Your task to perform on an android device: turn off picture-in-picture Image 0: 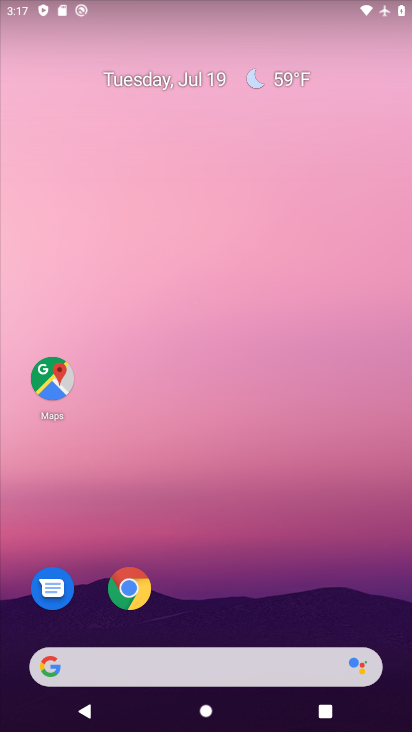
Step 0: drag from (230, 614) to (225, 6)
Your task to perform on an android device: turn off picture-in-picture Image 1: 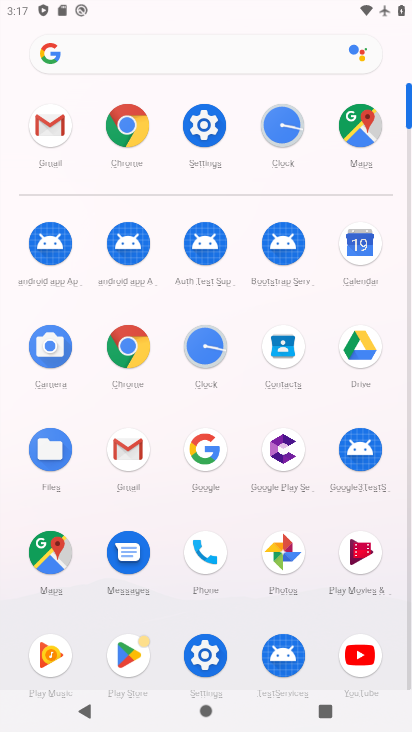
Step 1: click (128, 132)
Your task to perform on an android device: turn off picture-in-picture Image 2: 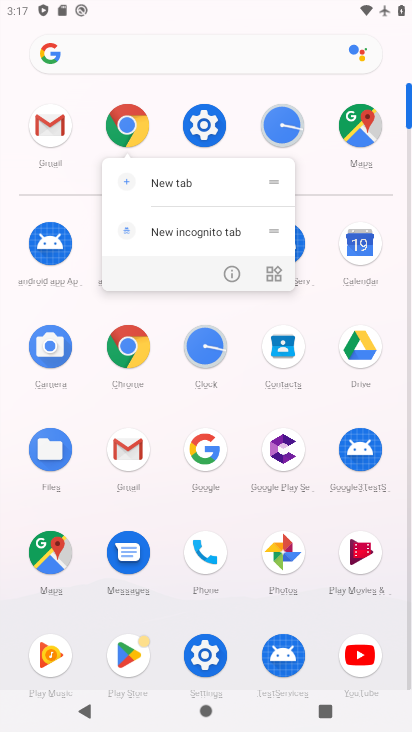
Step 2: click (138, 123)
Your task to perform on an android device: turn off picture-in-picture Image 3: 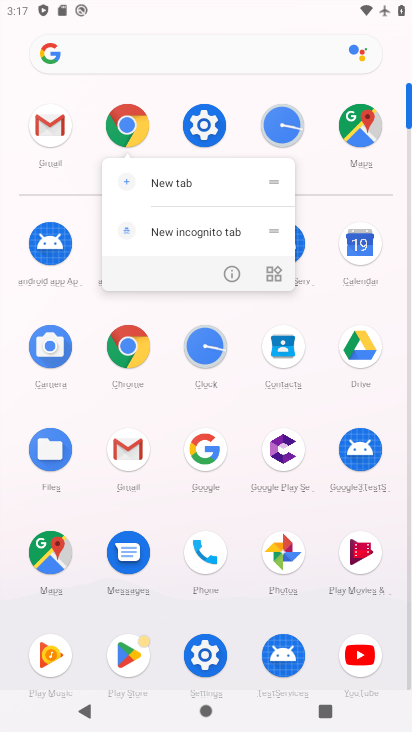
Step 3: click (227, 274)
Your task to perform on an android device: turn off picture-in-picture Image 4: 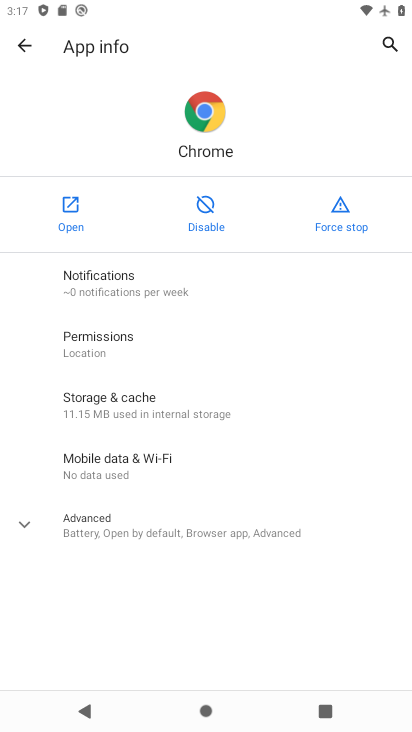
Step 4: click (126, 534)
Your task to perform on an android device: turn off picture-in-picture Image 5: 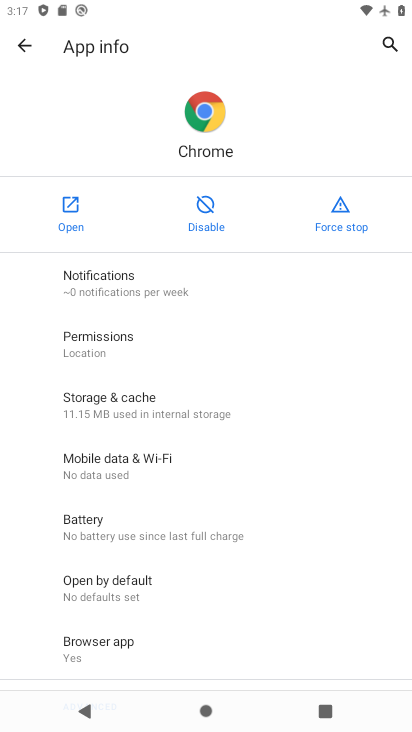
Step 5: drag from (236, 602) to (223, 164)
Your task to perform on an android device: turn off picture-in-picture Image 6: 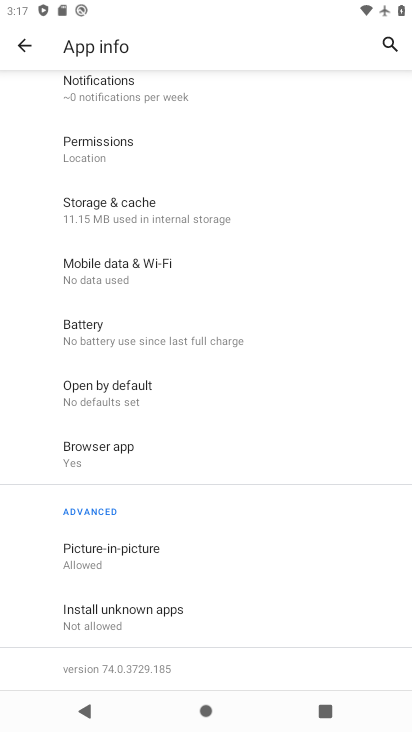
Step 6: click (91, 559)
Your task to perform on an android device: turn off picture-in-picture Image 7: 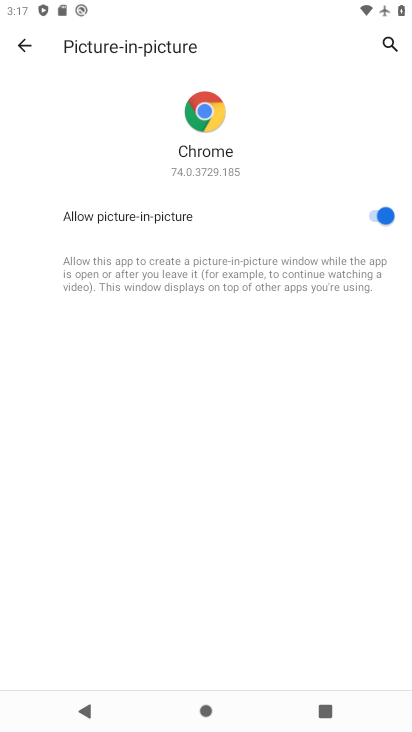
Step 7: click (386, 220)
Your task to perform on an android device: turn off picture-in-picture Image 8: 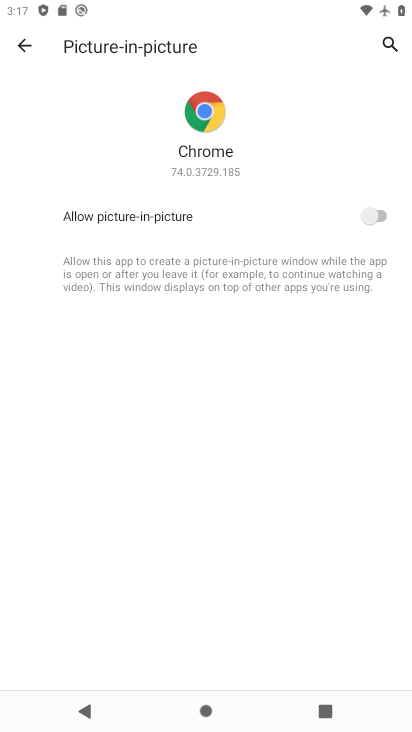
Step 8: task complete